Your task to perform on an android device: Search for a 1/4" hex shank drill bit on Lowe's. Image 0: 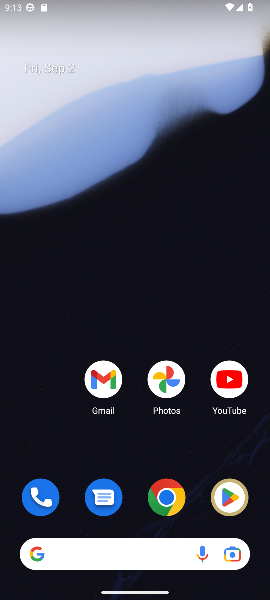
Step 0: drag from (123, 491) to (113, 160)
Your task to perform on an android device: Search for a 1/4" hex shank drill bit on Lowe's. Image 1: 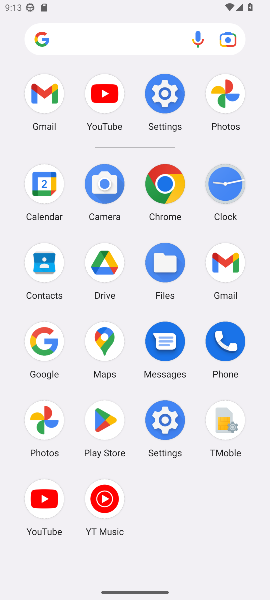
Step 1: click (38, 349)
Your task to perform on an android device: Search for a 1/4" hex shank drill bit on Lowe's. Image 2: 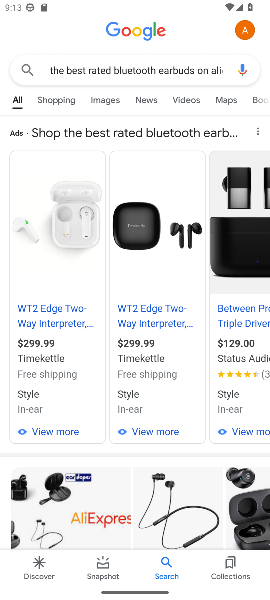
Step 2: click (166, 66)
Your task to perform on an android device: Search for a 1/4" hex shank drill bit on Lowe's. Image 3: 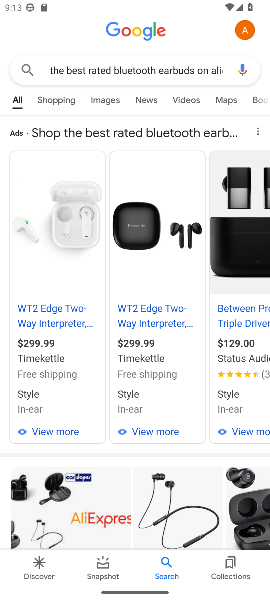
Step 3: click (166, 66)
Your task to perform on an android device: Search for a 1/4" hex shank drill bit on Lowe's. Image 4: 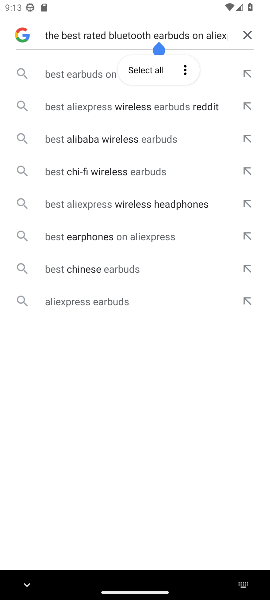
Step 4: click (245, 35)
Your task to perform on an android device: Search for a 1/4" hex shank drill bit on Lowe's. Image 5: 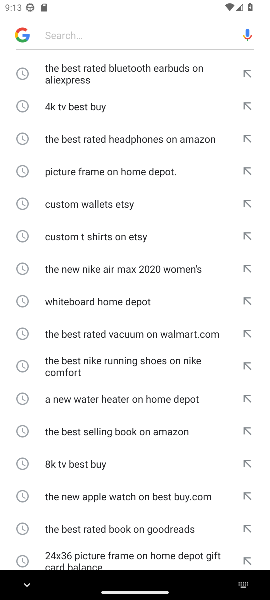
Step 5: type "a 1/4" hex shank drill bit on Lowe's"
Your task to perform on an android device: Search for a 1/4" hex shank drill bit on Lowe's. Image 6: 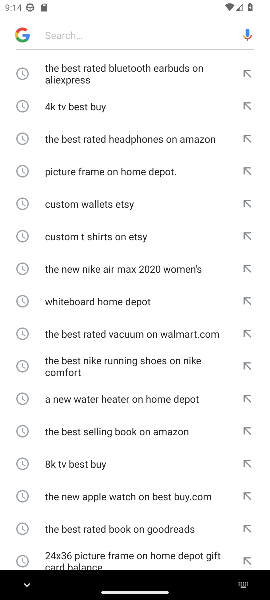
Step 6: type "1/4 " hex shank drill bit on Lowe's"
Your task to perform on an android device: Search for a 1/4" hex shank drill bit on Lowe's. Image 7: 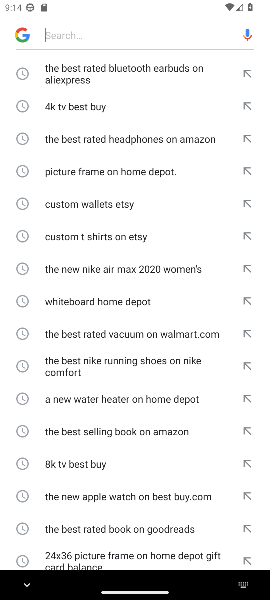
Step 7: task complete